Your task to perform on an android device: Go to CNN.com Image 0: 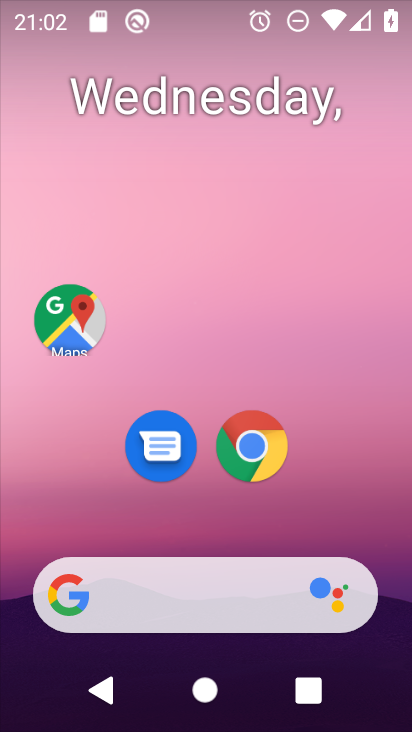
Step 0: click (249, 448)
Your task to perform on an android device: Go to CNN.com Image 1: 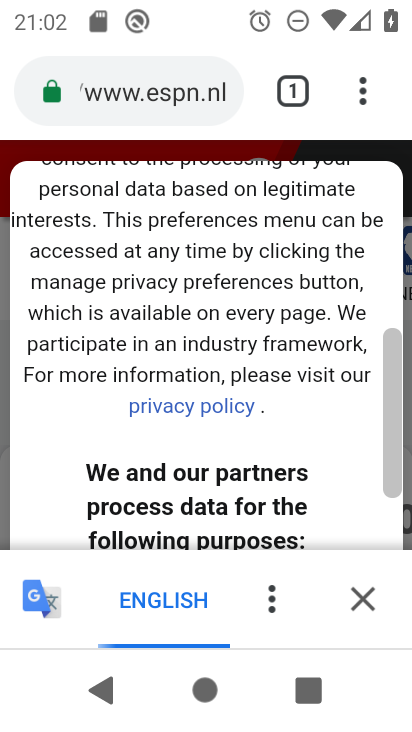
Step 1: click (158, 80)
Your task to perform on an android device: Go to CNN.com Image 2: 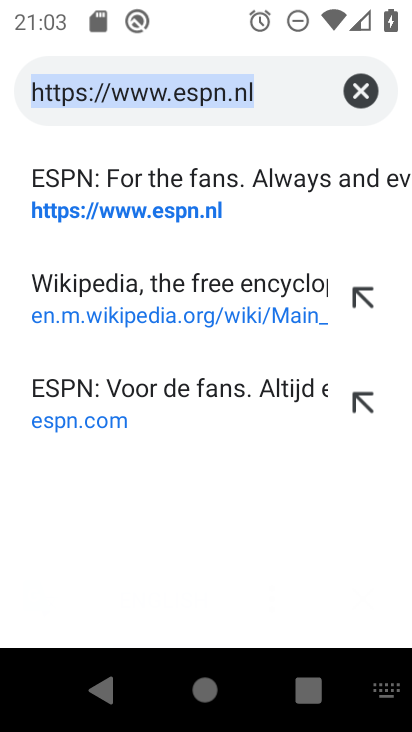
Step 2: type "cnn.clom"
Your task to perform on an android device: Go to CNN.com Image 3: 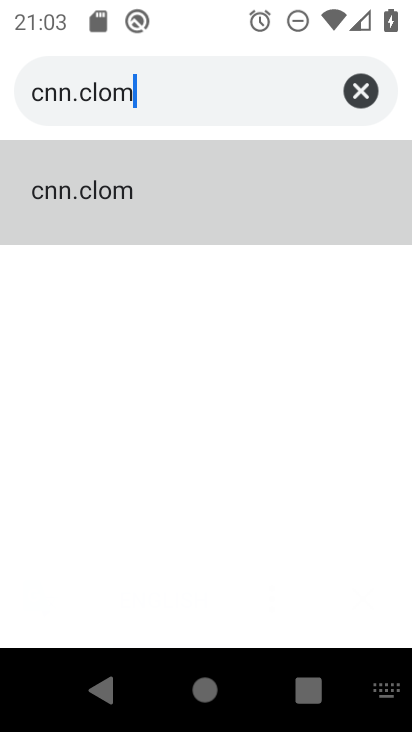
Step 3: click (358, 90)
Your task to perform on an android device: Go to CNN.com Image 4: 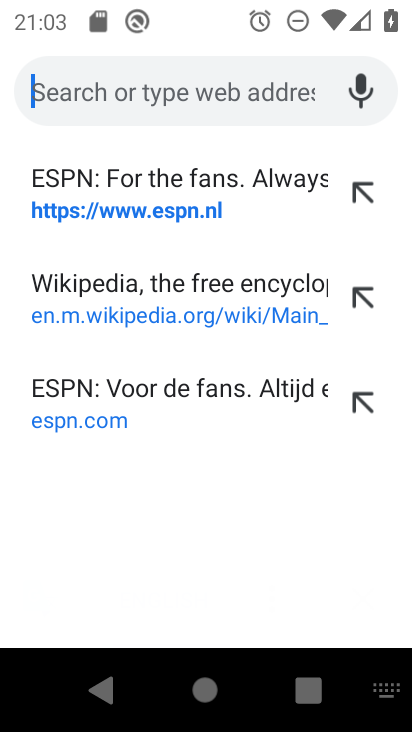
Step 4: type "cnn.com"
Your task to perform on an android device: Go to CNN.com Image 5: 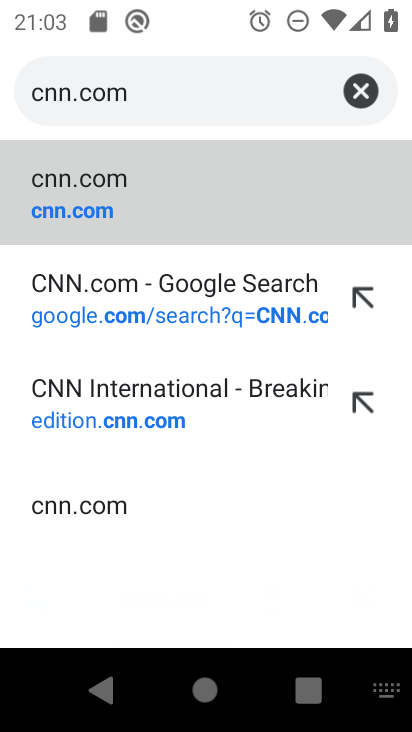
Step 5: click (127, 186)
Your task to perform on an android device: Go to CNN.com Image 6: 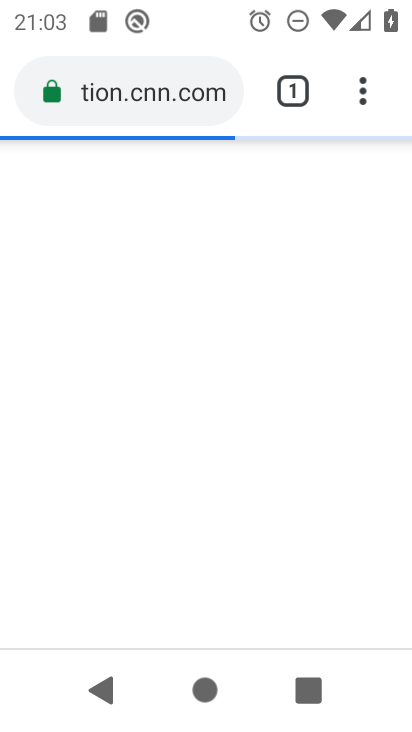
Step 6: task complete